Your task to perform on an android device: check battery use Image 0: 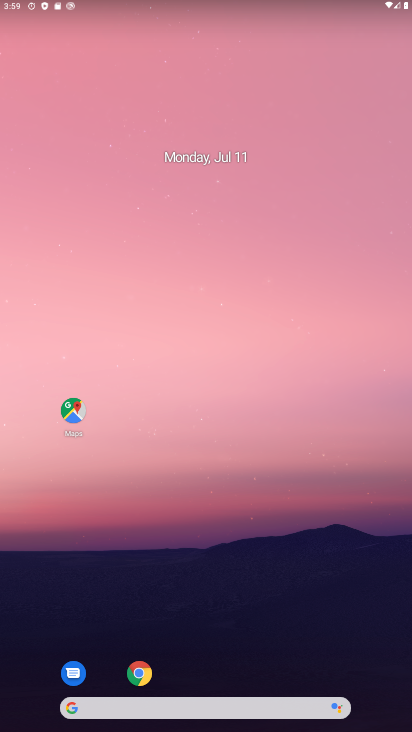
Step 0: drag from (280, 565) to (324, 105)
Your task to perform on an android device: check battery use Image 1: 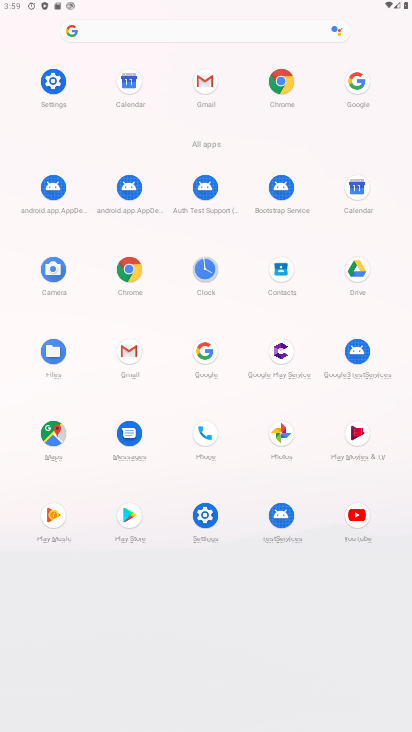
Step 1: click (212, 514)
Your task to perform on an android device: check battery use Image 2: 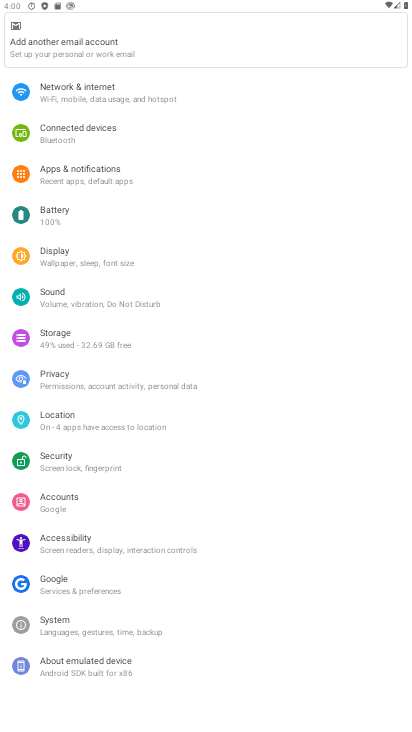
Step 2: click (50, 222)
Your task to perform on an android device: check battery use Image 3: 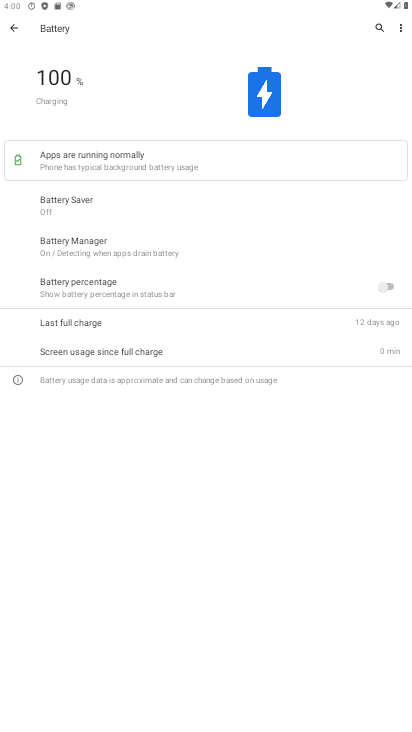
Step 3: task complete